Your task to perform on an android device: create a new album in the google photos Image 0: 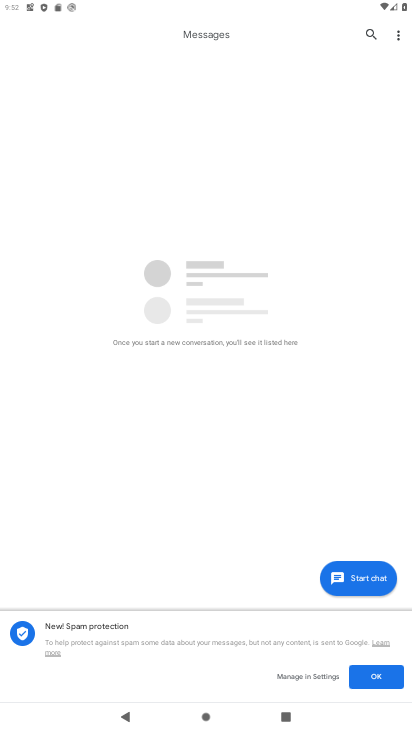
Step 0: press home button
Your task to perform on an android device: create a new album in the google photos Image 1: 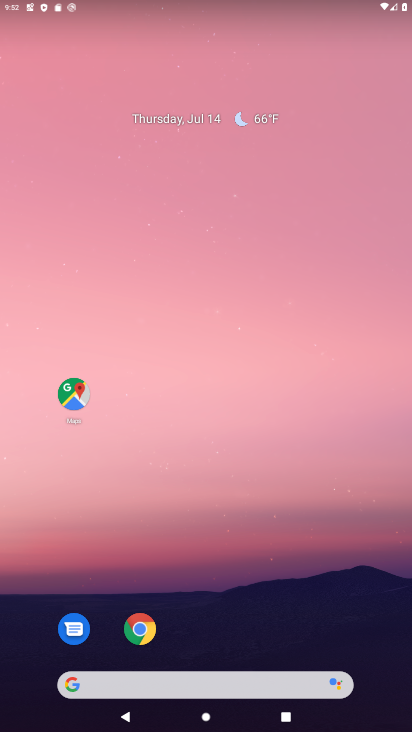
Step 1: drag from (230, 636) to (220, 61)
Your task to perform on an android device: create a new album in the google photos Image 2: 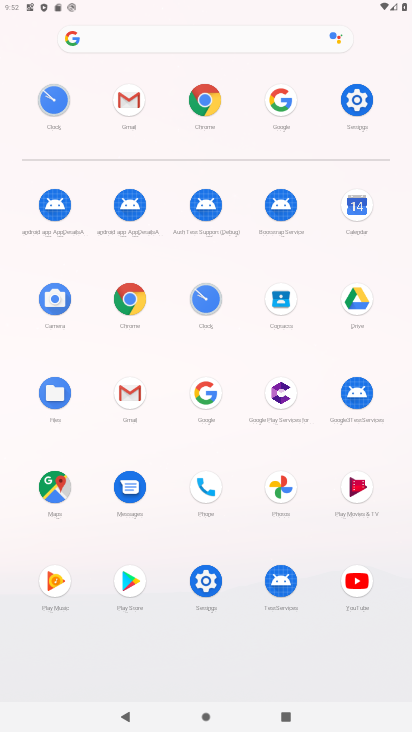
Step 2: click (289, 481)
Your task to perform on an android device: create a new album in the google photos Image 3: 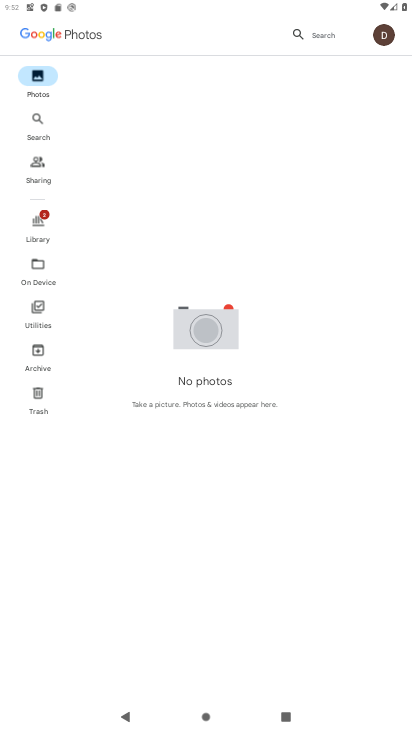
Step 3: task complete